Your task to perform on an android device: Open Yahoo.com Image 0: 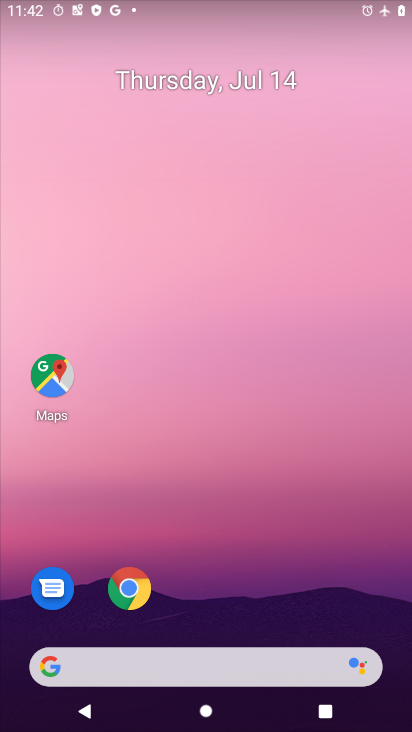
Step 0: press home button
Your task to perform on an android device: Open Yahoo.com Image 1: 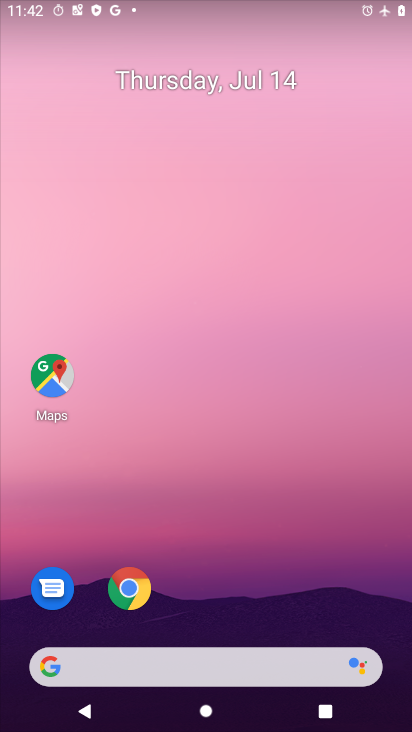
Step 1: click (141, 588)
Your task to perform on an android device: Open Yahoo.com Image 2: 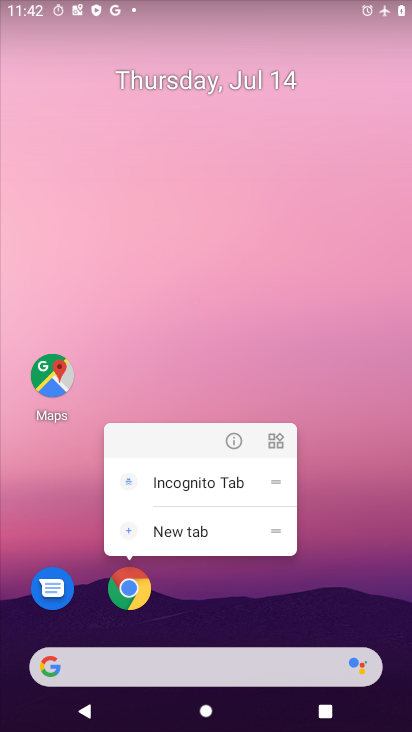
Step 2: click (125, 610)
Your task to perform on an android device: Open Yahoo.com Image 3: 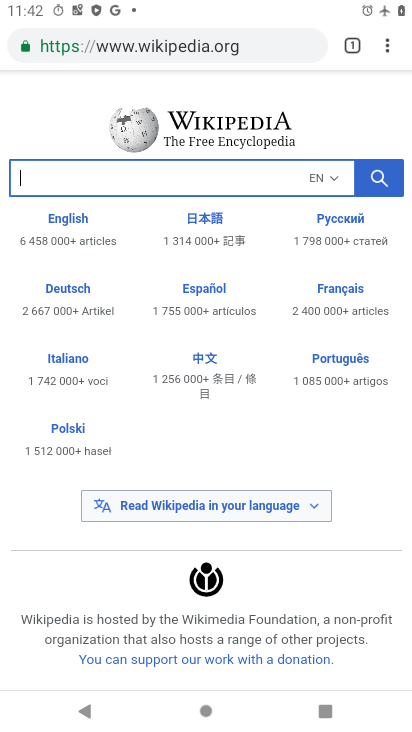
Step 3: drag from (308, 2) to (283, 525)
Your task to perform on an android device: Open Yahoo.com Image 4: 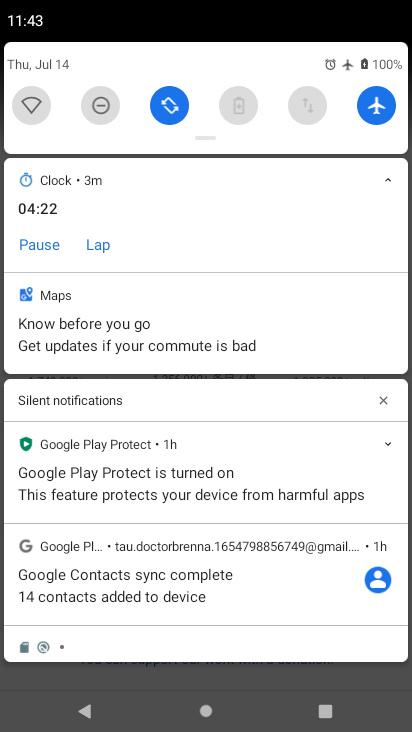
Step 4: click (373, 108)
Your task to perform on an android device: Open Yahoo.com Image 5: 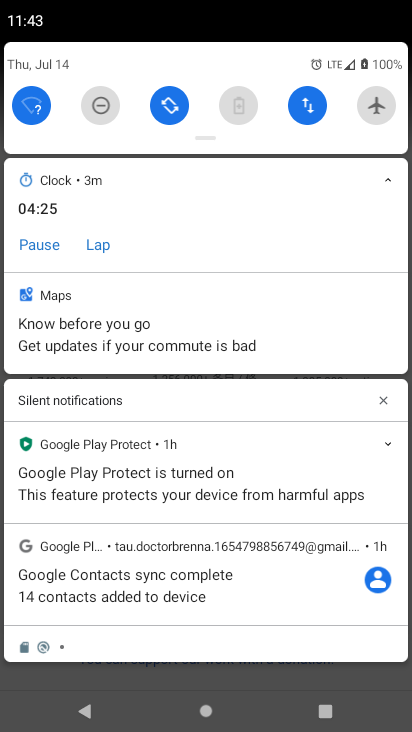
Step 5: drag from (309, 675) to (253, 286)
Your task to perform on an android device: Open Yahoo.com Image 6: 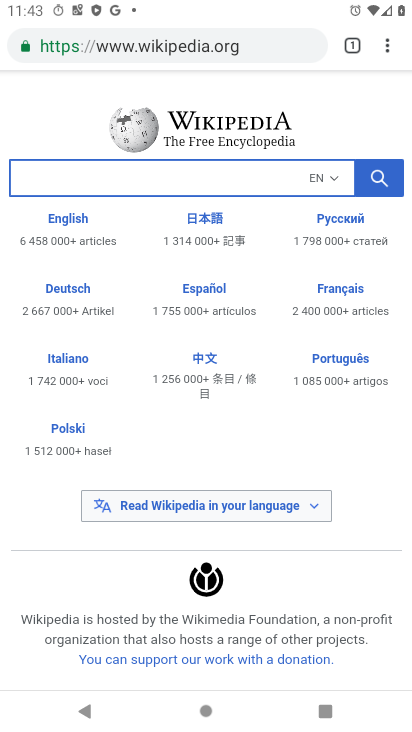
Step 6: click (193, 47)
Your task to perform on an android device: Open Yahoo.com Image 7: 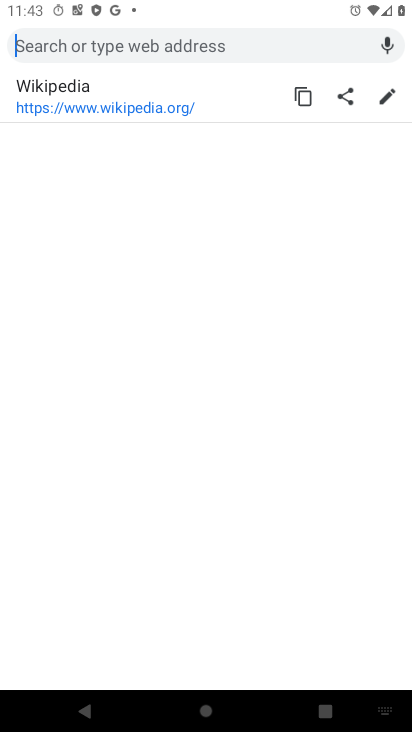
Step 7: type "Yahoo.com"
Your task to perform on an android device: Open Yahoo.com Image 8: 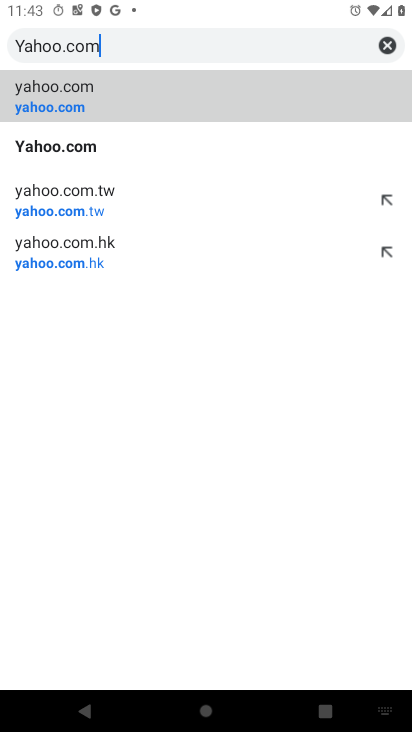
Step 8: type ""
Your task to perform on an android device: Open Yahoo.com Image 9: 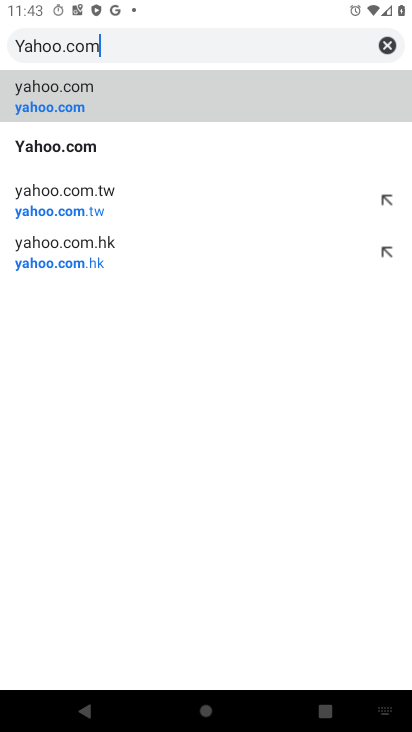
Step 9: click (78, 102)
Your task to perform on an android device: Open Yahoo.com Image 10: 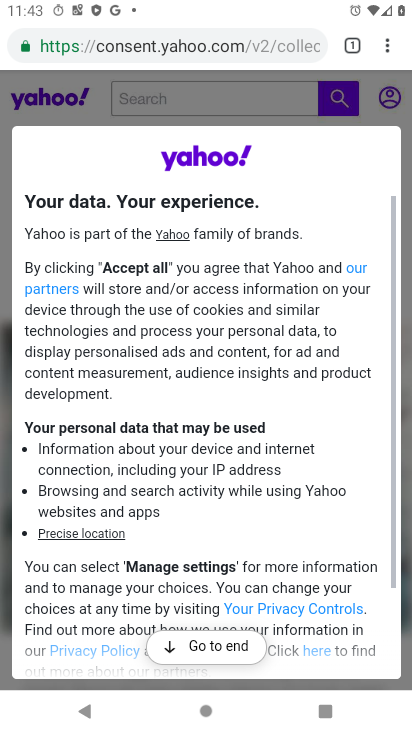
Step 10: task complete